Your task to perform on an android device: Find coffee shops on Maps Image 0: 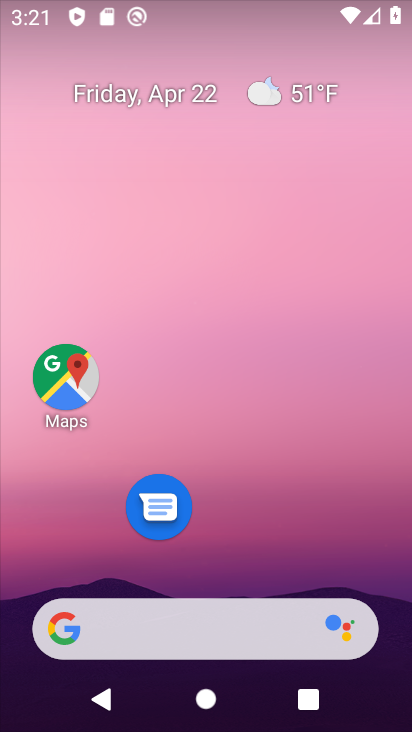
Step 0: click (58, 386)
Your task to perform on an android device: Find coffee shops on Maps Image 1: 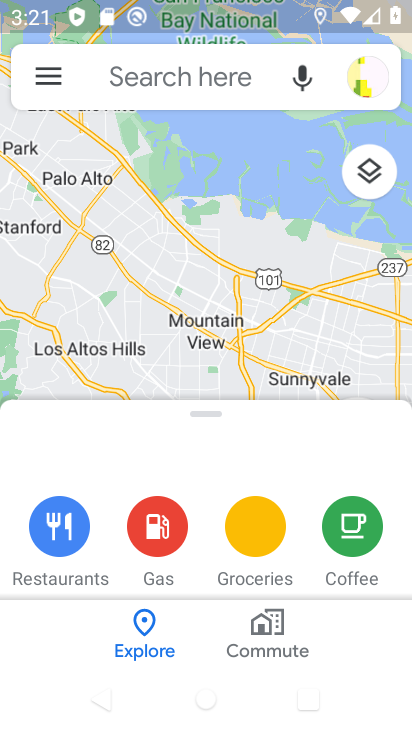
Step 1: click (149, 78)
Your task to perform on an android device: Find coffee shops on Maps Image 2: 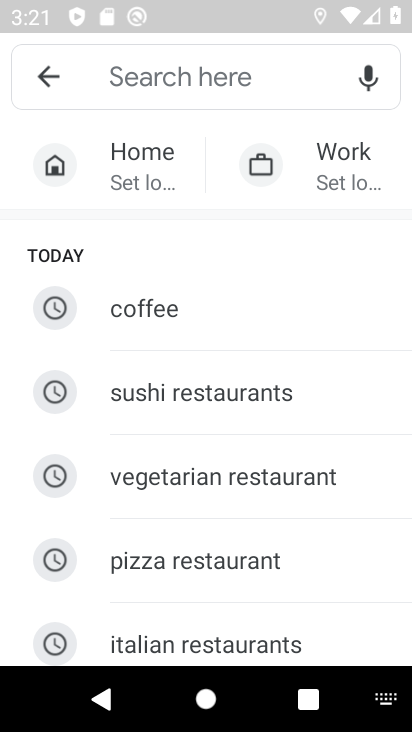
Step 2: click (136, 317)
Your task to perform on an android device: Find coffee shops on Maps Image 3: 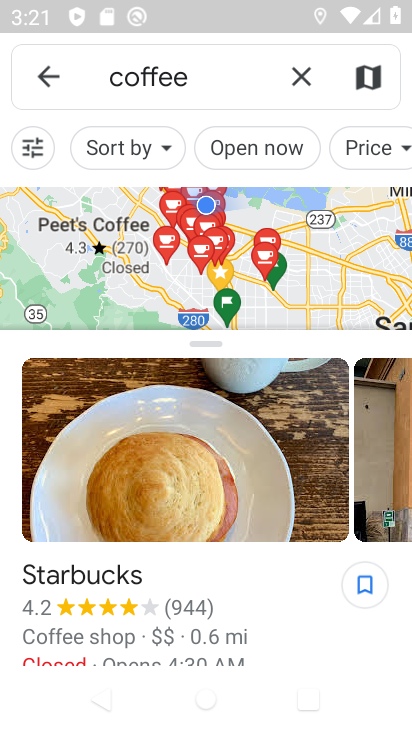
Step 3: task complete